Your task to perform on an android device: Clear all items from cart on target.com. Search for apple airpods on target.com, select the first entry, and add it to the cart. Image 0: 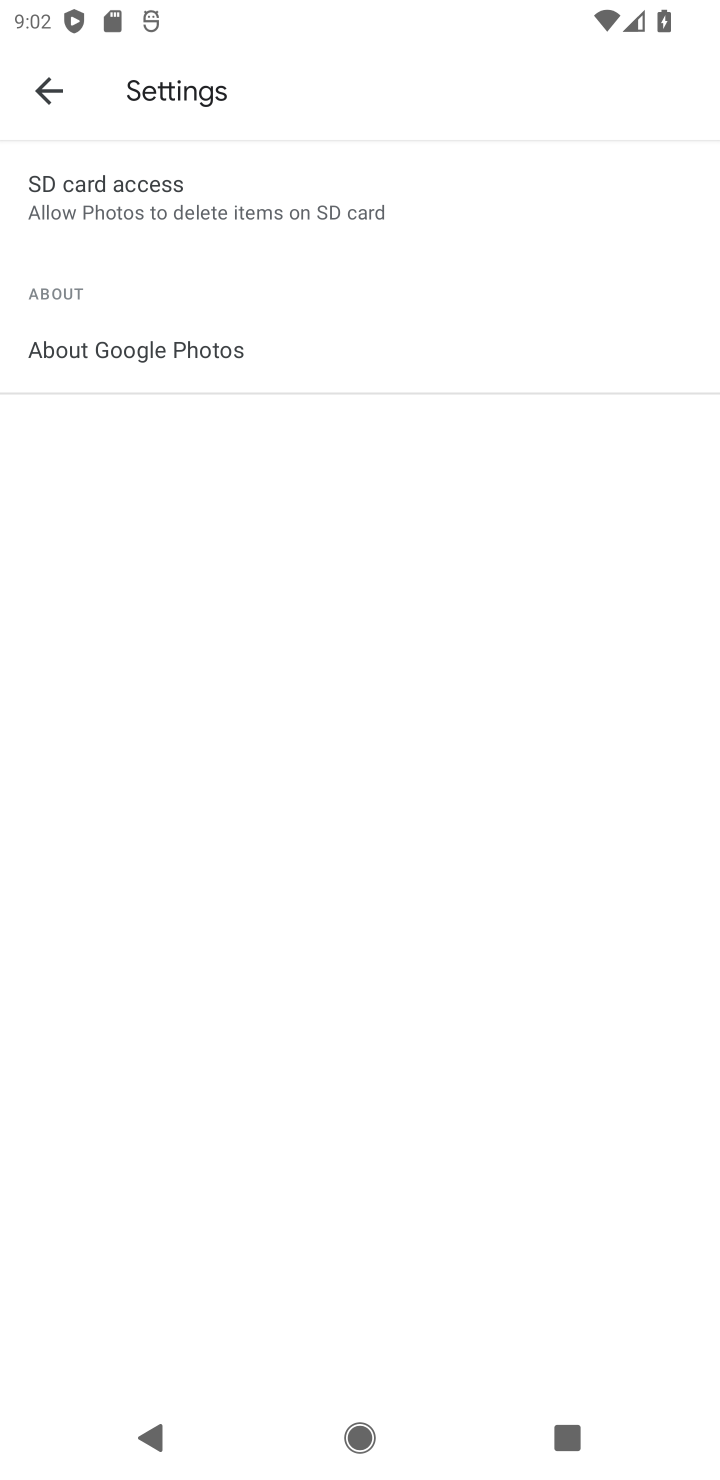
Step 0: press home button
Your task to perform on an android device: Clear all items from cart on target.com. Search for apple airpods on target.com, select the first entry, and add it to the cart. Image 1: 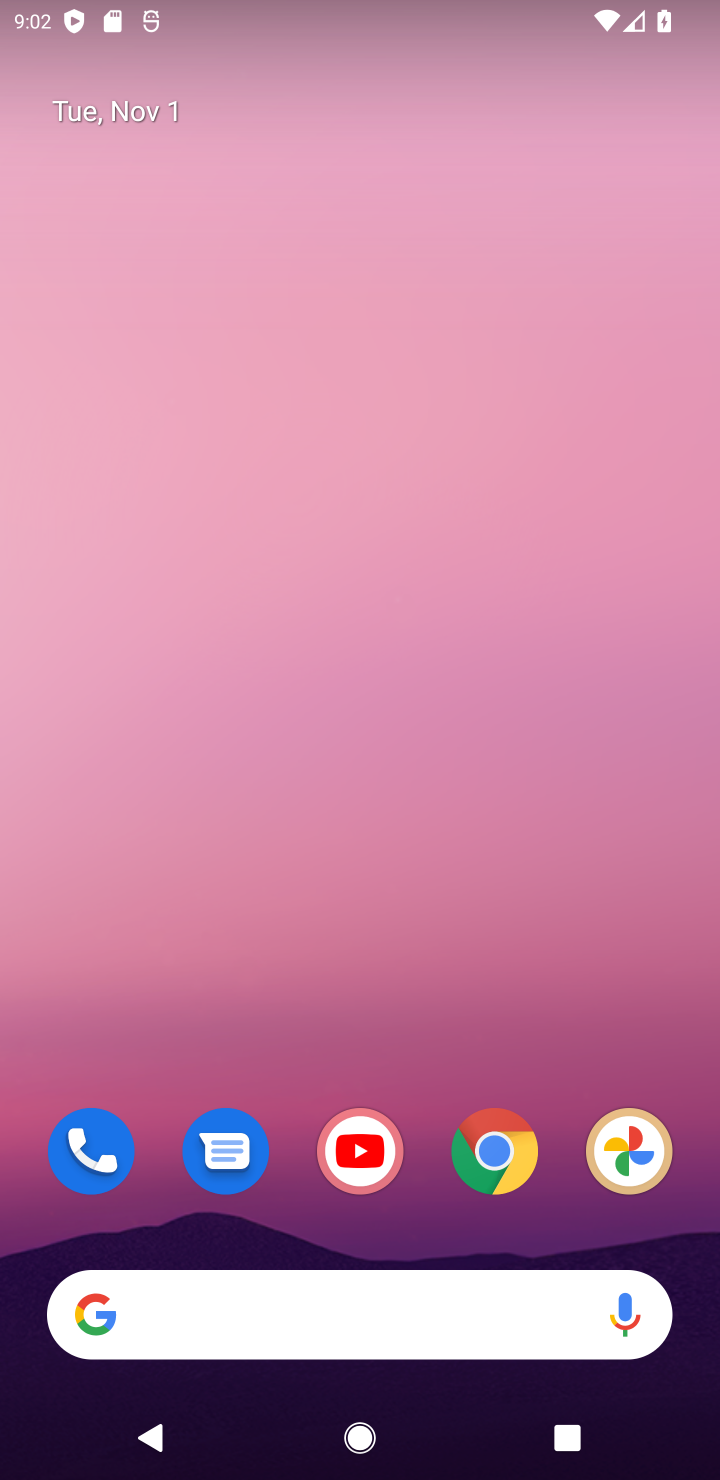
Step 1: click (499, 1169)
Your task to perform on an android device: Clear all items from cart on target.com. Search for apple airpods on target.com, select the first entry, and add it to the cart. Image 2: 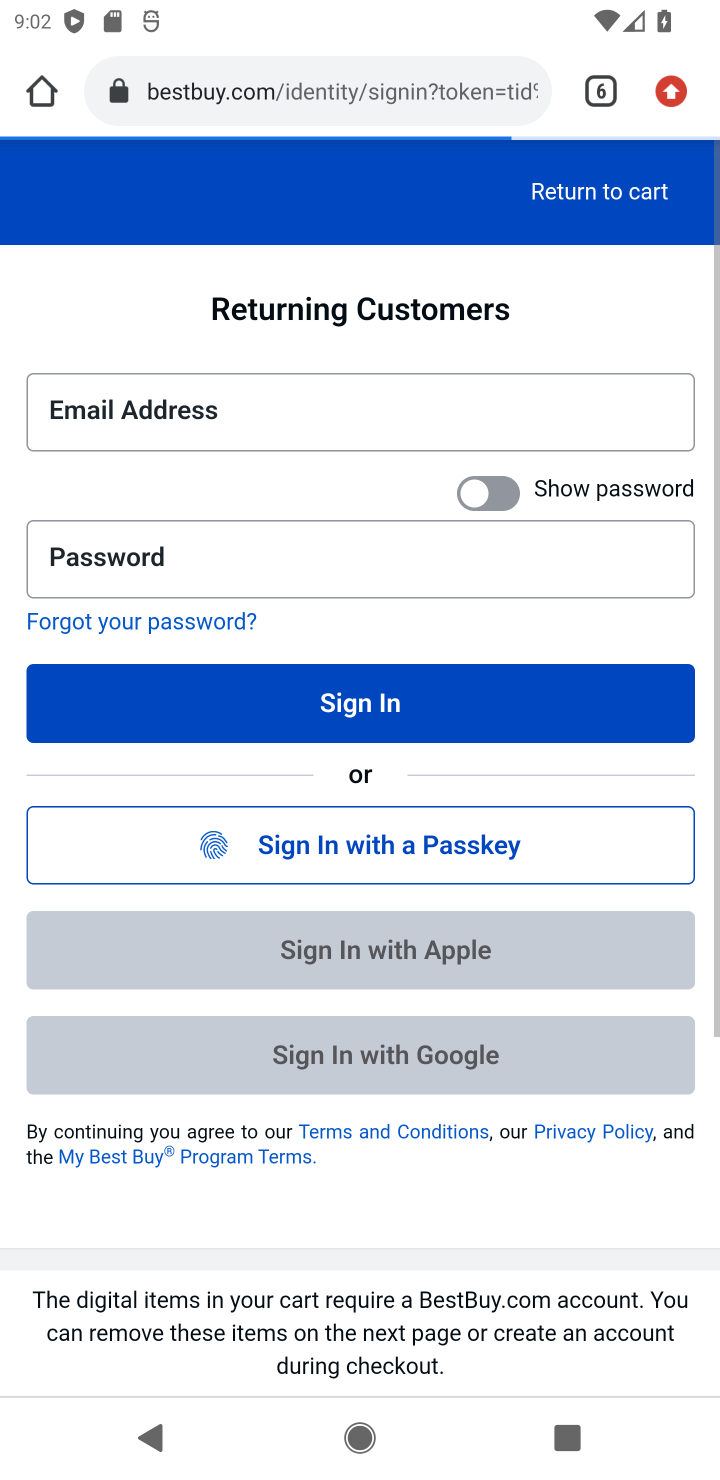
Step 2: click (602, 90)
Your task to perform on an android device: Clear all items from cart on target.com. Search for apple airpods on target.com, select the first entry, and add it to the cart. Image 3: 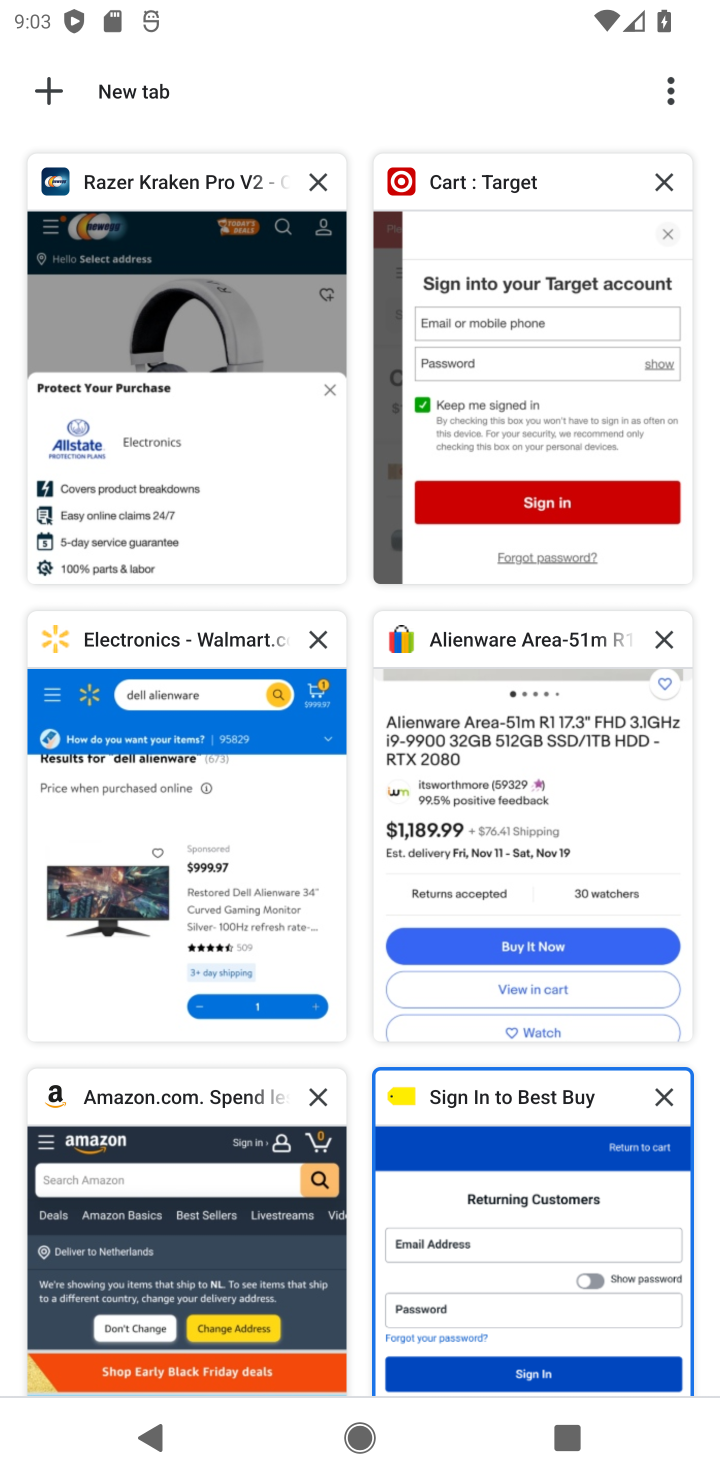
Step 3: click (516, 247)
Your task to perform on an android device: Clear all items from cart on target.com. Search for apple airpods on target.com, select the first entry, and add it to the cart. Image 4: 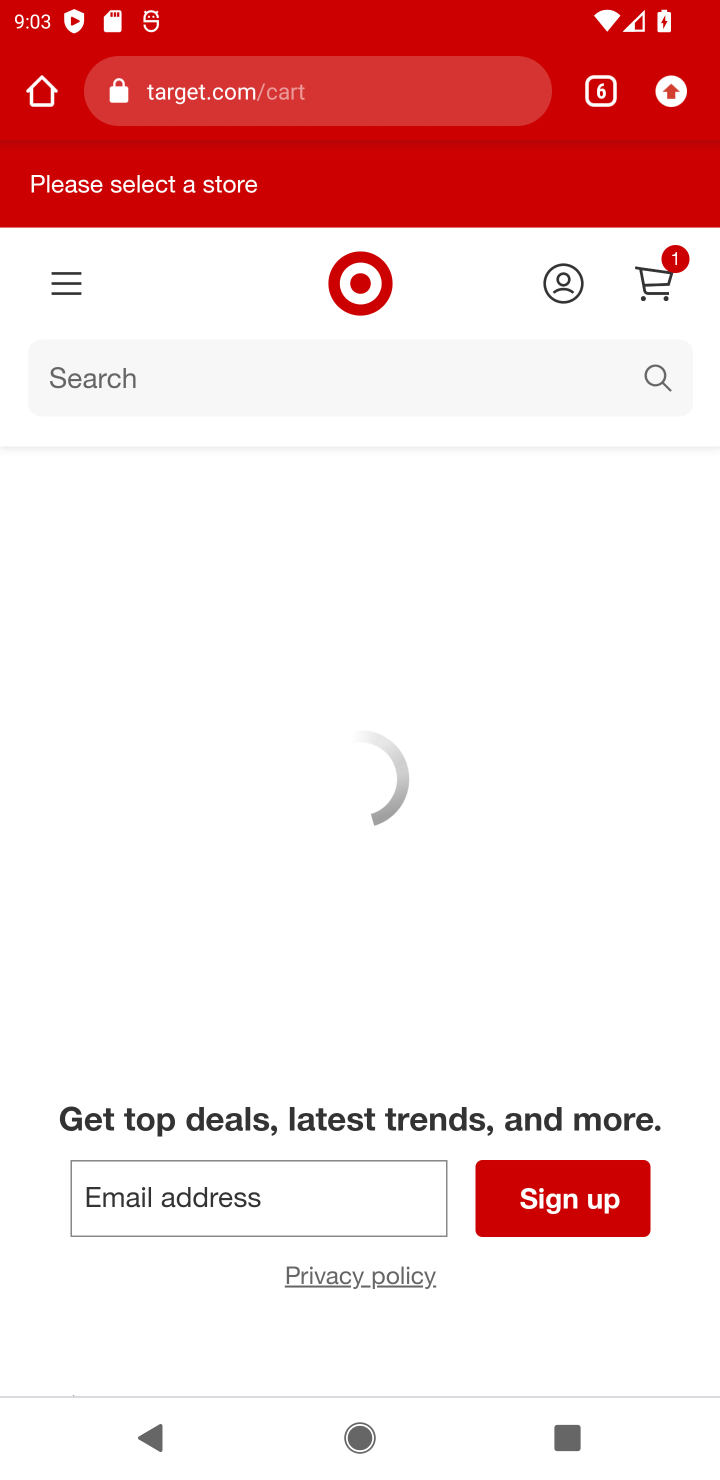
Step 4: click (667, 274)
Your task to perform on an android device: Clear all items from cart on target.com. Search for apple airpods on target.com, select the first entry, and add it to the cart. Image 5: 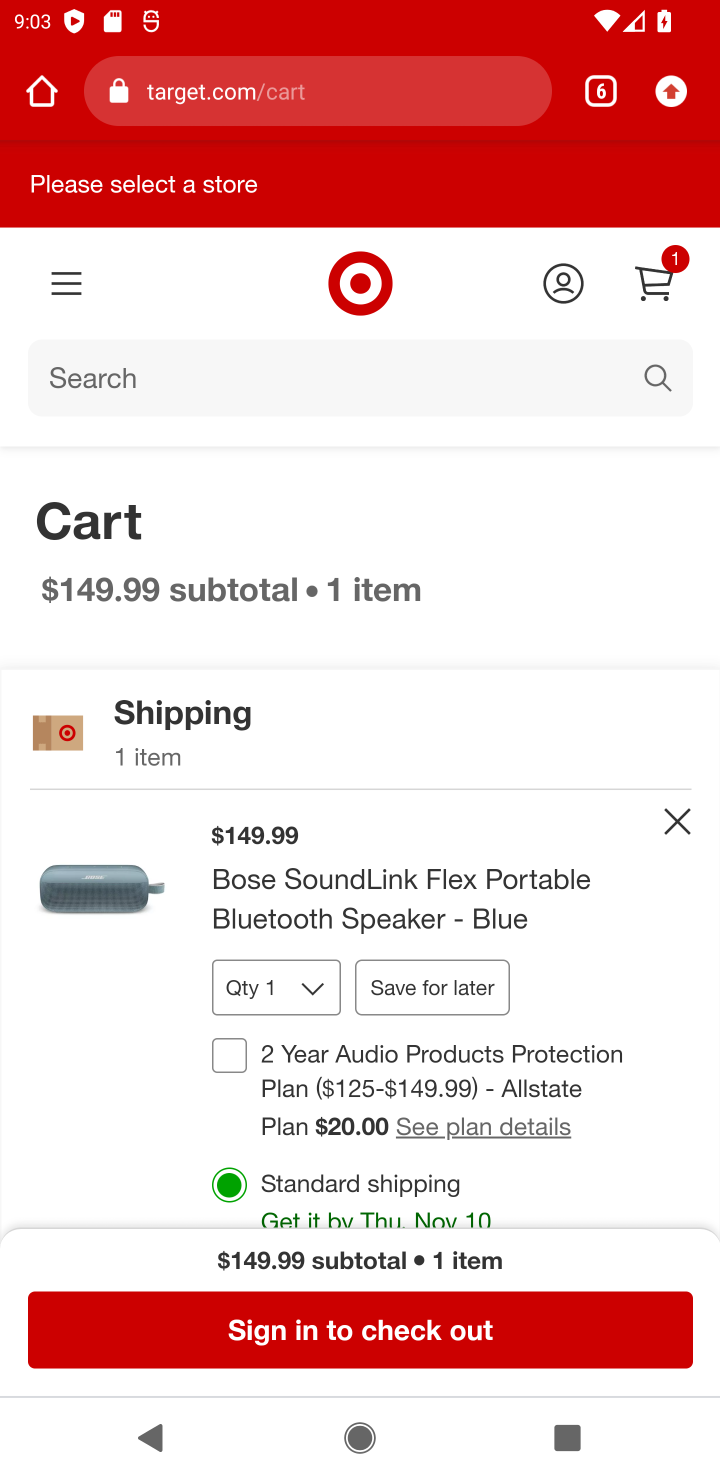
Step 5: drag from (413, 1113) to (594, 262)
Your task to perform on an android device: Clear all items from cart on target.com. Search for apple airpods on target.com, select the first entry, and add it to the cart. Image 6: 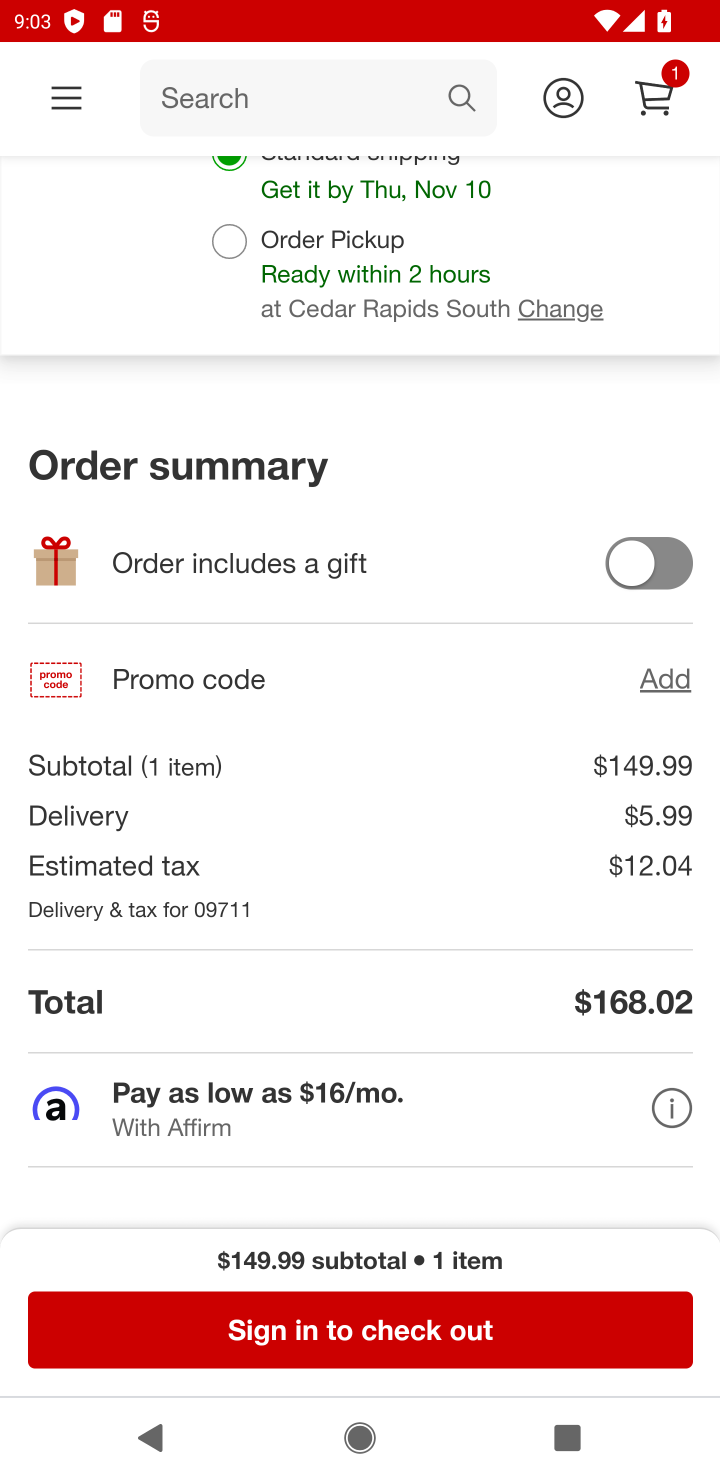
Step 6: drag from (557, 343) to (411, 1005)
Your task to perform on an android device: Clear all items from cart on target.com. Search for apple airpods on target.com, select the first entry, and add it to the cart. Image 7: 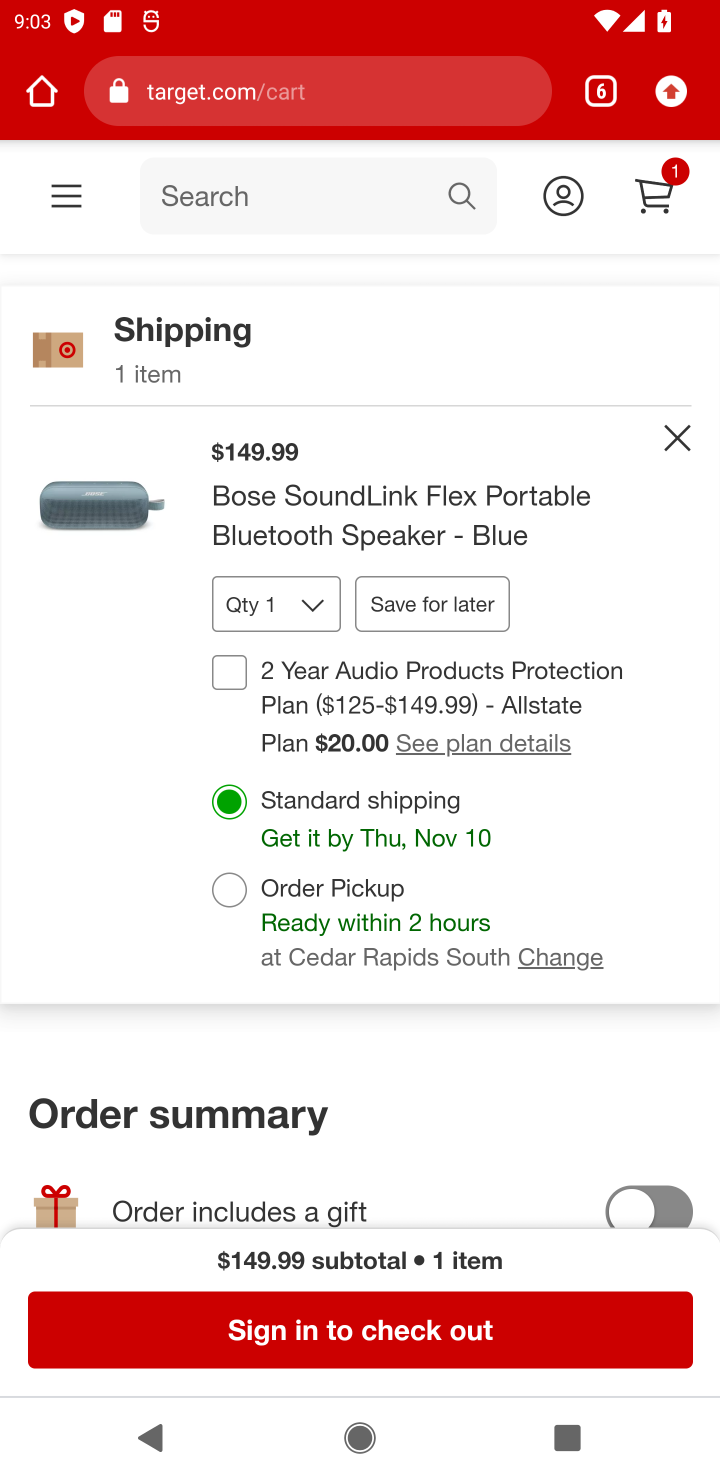
Step 7: click (674, 432)
Your task to perform on an android device: Clear all items from cart on target.com. Search for apple airpods on target.com, select the first entry, and add it to the cart. Image 8: 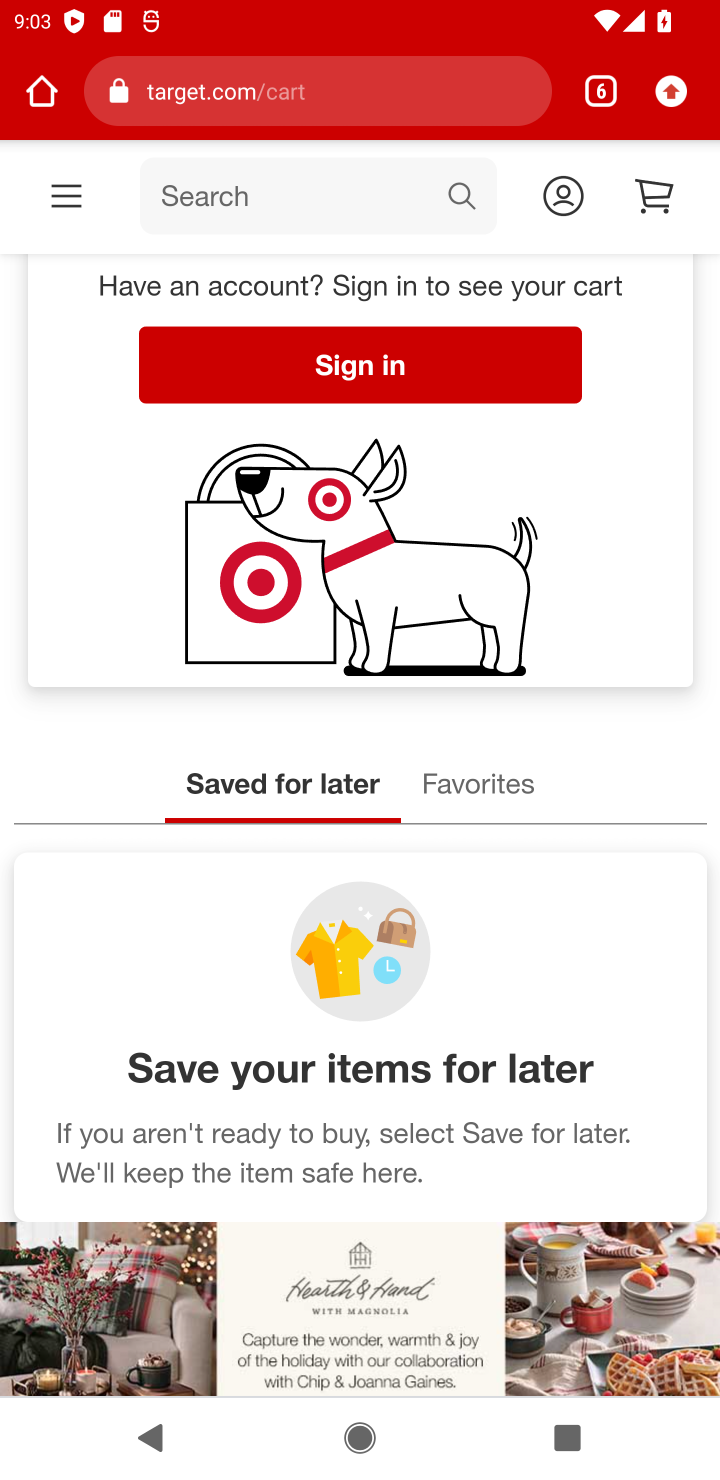
Step 8: click (418, 191)
Your task to perform on an android device: Clear all items from cart on target.com. Search for apple airpods on target.com, select the first entry, and add it to the cart. Image 9: 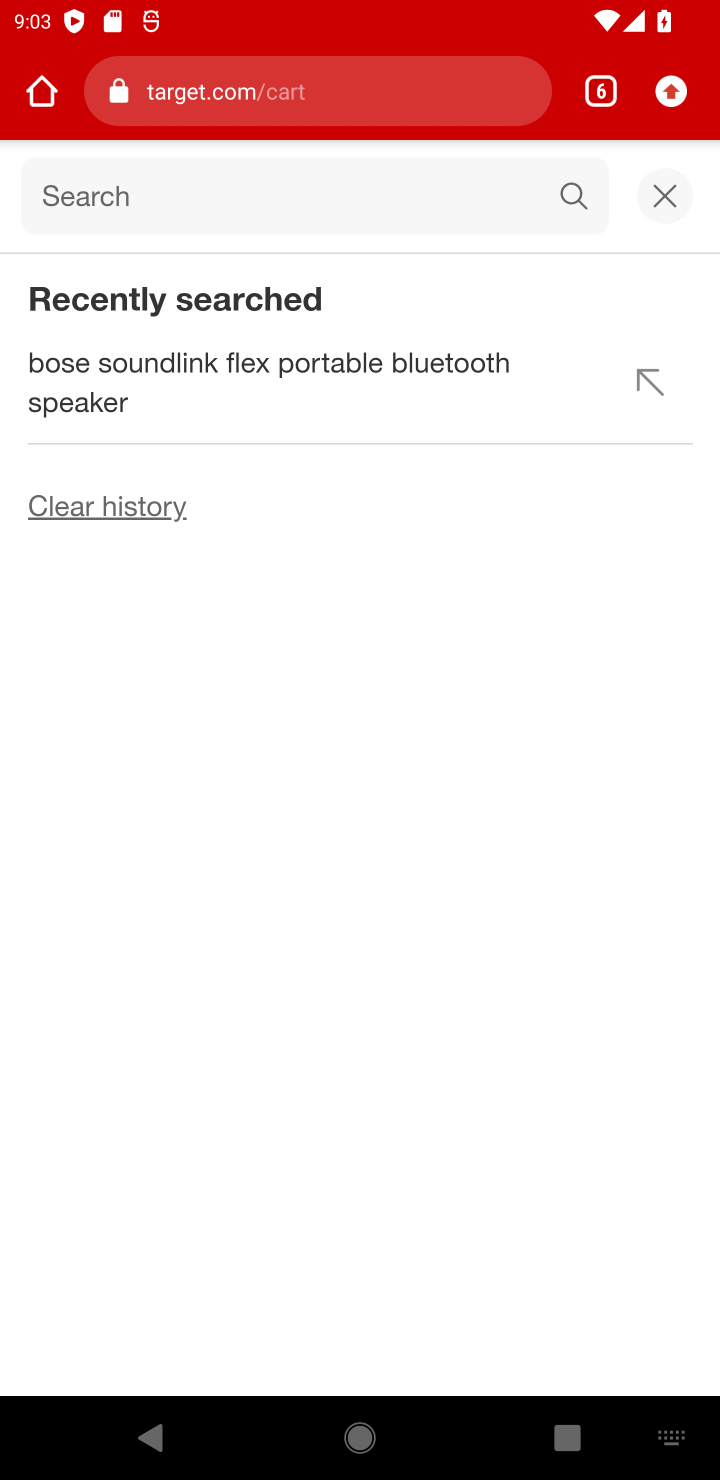
Step 9: type "apple airpods "
Your task to perform on an android device: Clear all items from cart on target.com. Search for apple airpods on target.com, select the first entry, and add it to the cart. Image 10: 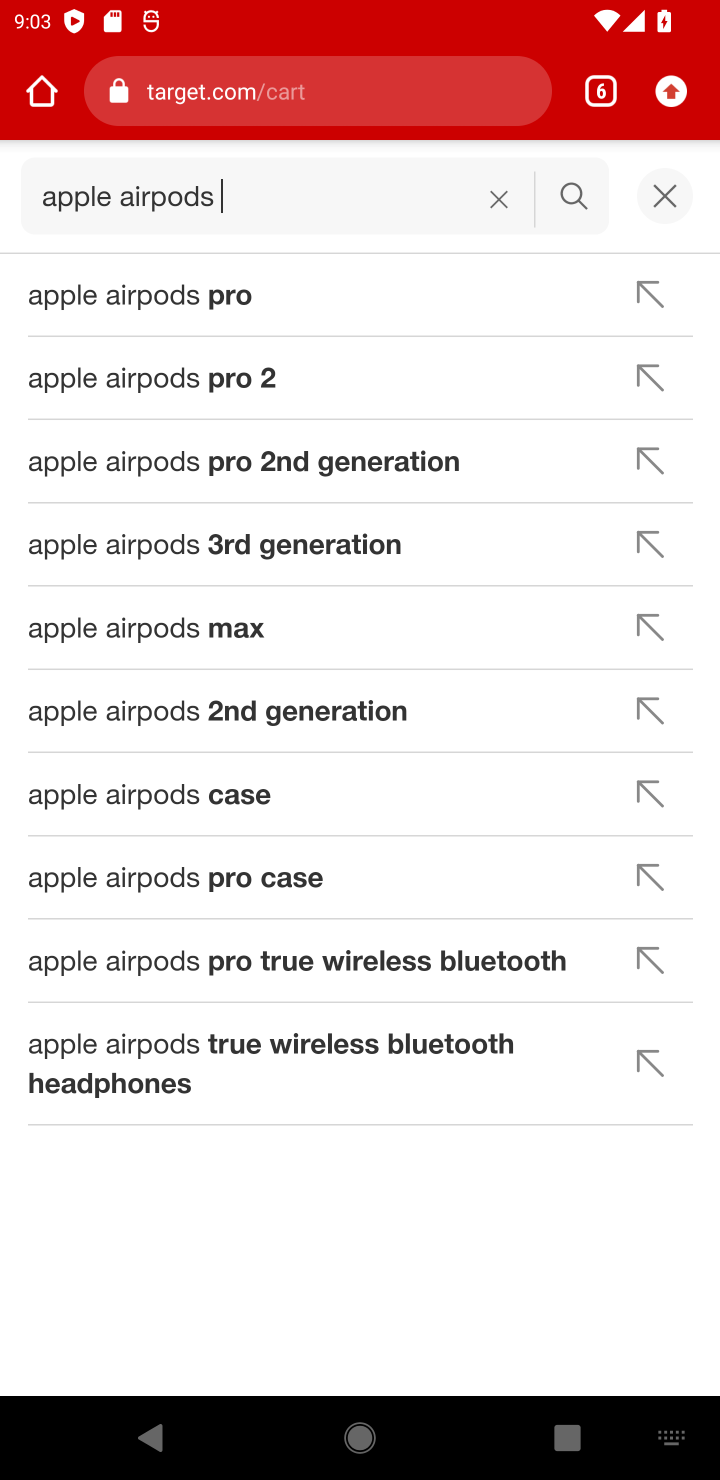
Step 10: click (199, 294)
Your task to perform on an android device: Clear all items from cart on target.com. Search for apple airpods on target.com, select the first entry, and add it to the cart. Image 11: 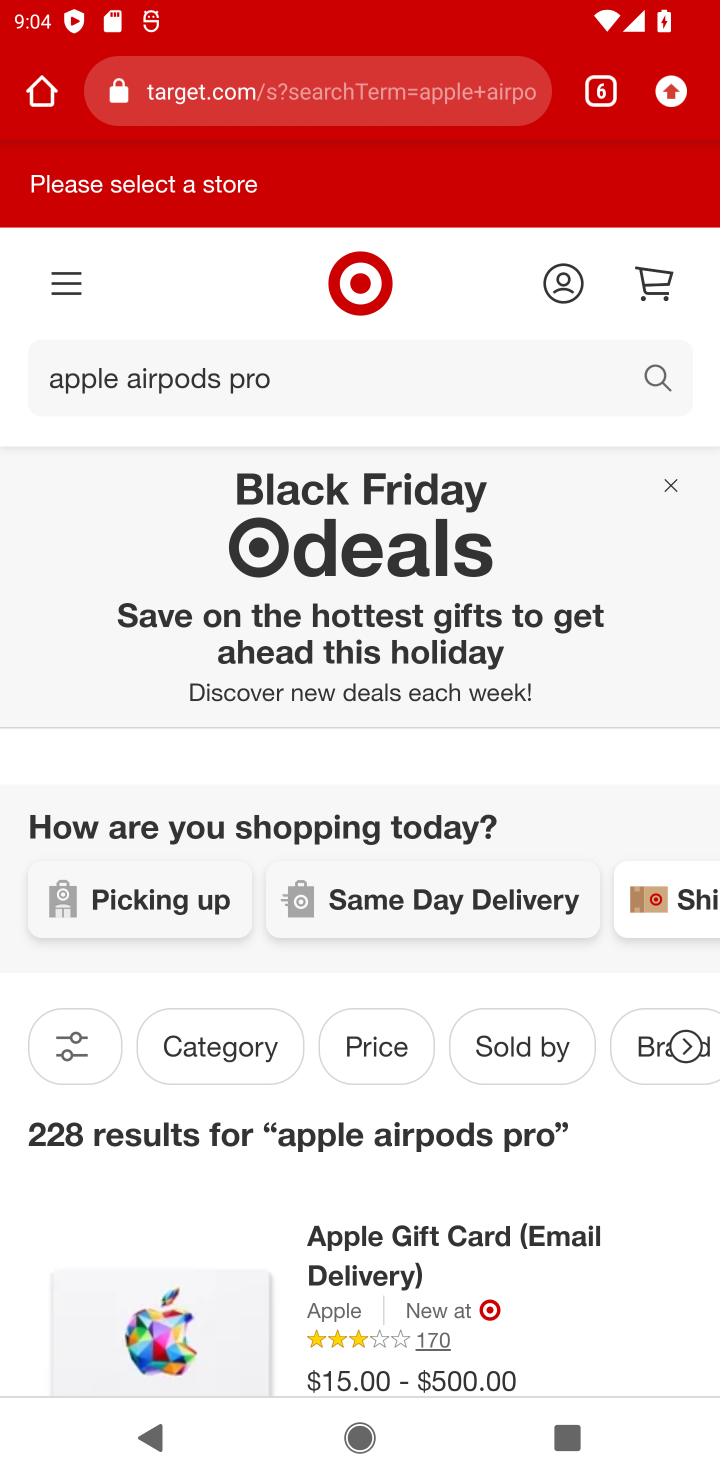
Step 11: drag from (384, 1301) to (420, 457)
Your task to perform on an android device: Clear all items from cart on target.com. Search for apple airpods on target.com, select the first entry, and add it to the cart. Image 12: 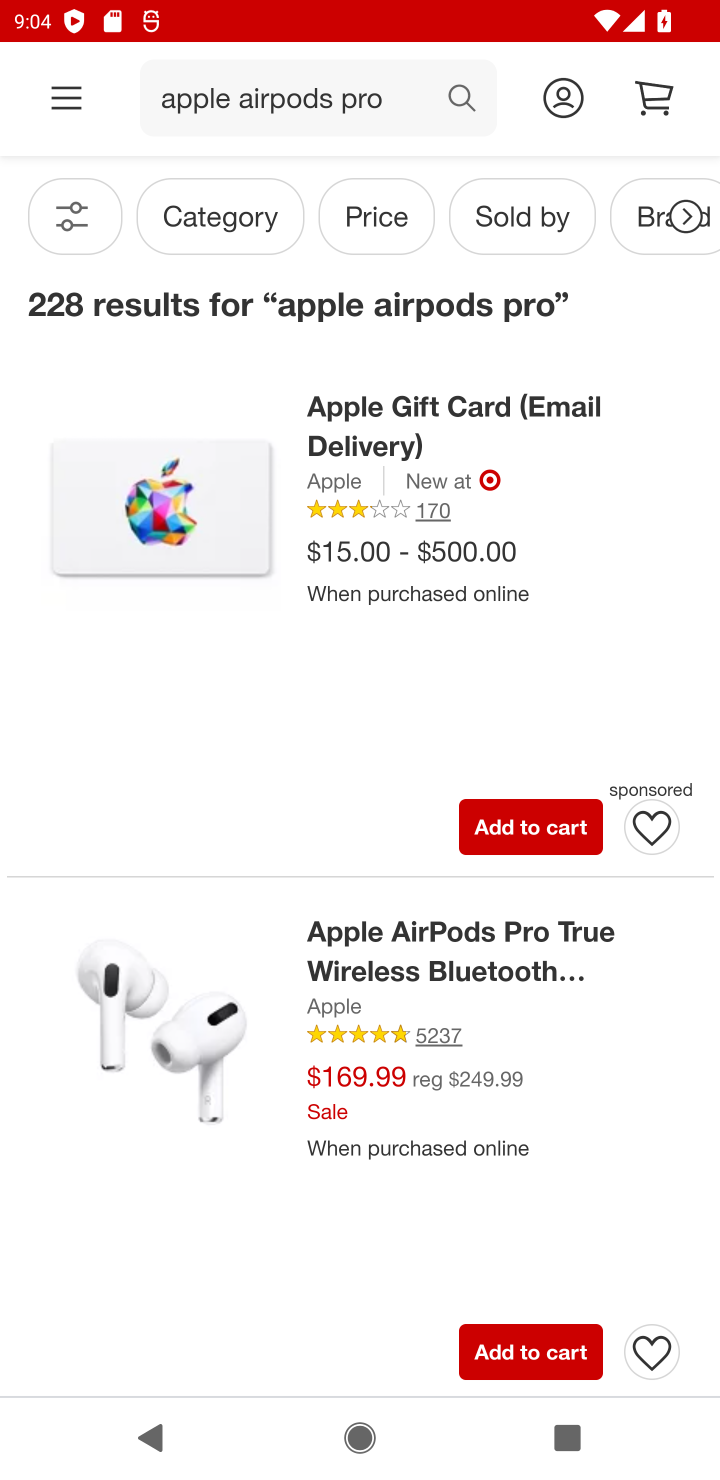
Step 12: click (545, 832)
Your task to perform on an android device: Clear all items from cart on target.com. Search for apple airpods on target.com, select the first entry, and add it to the cart. Image 13: 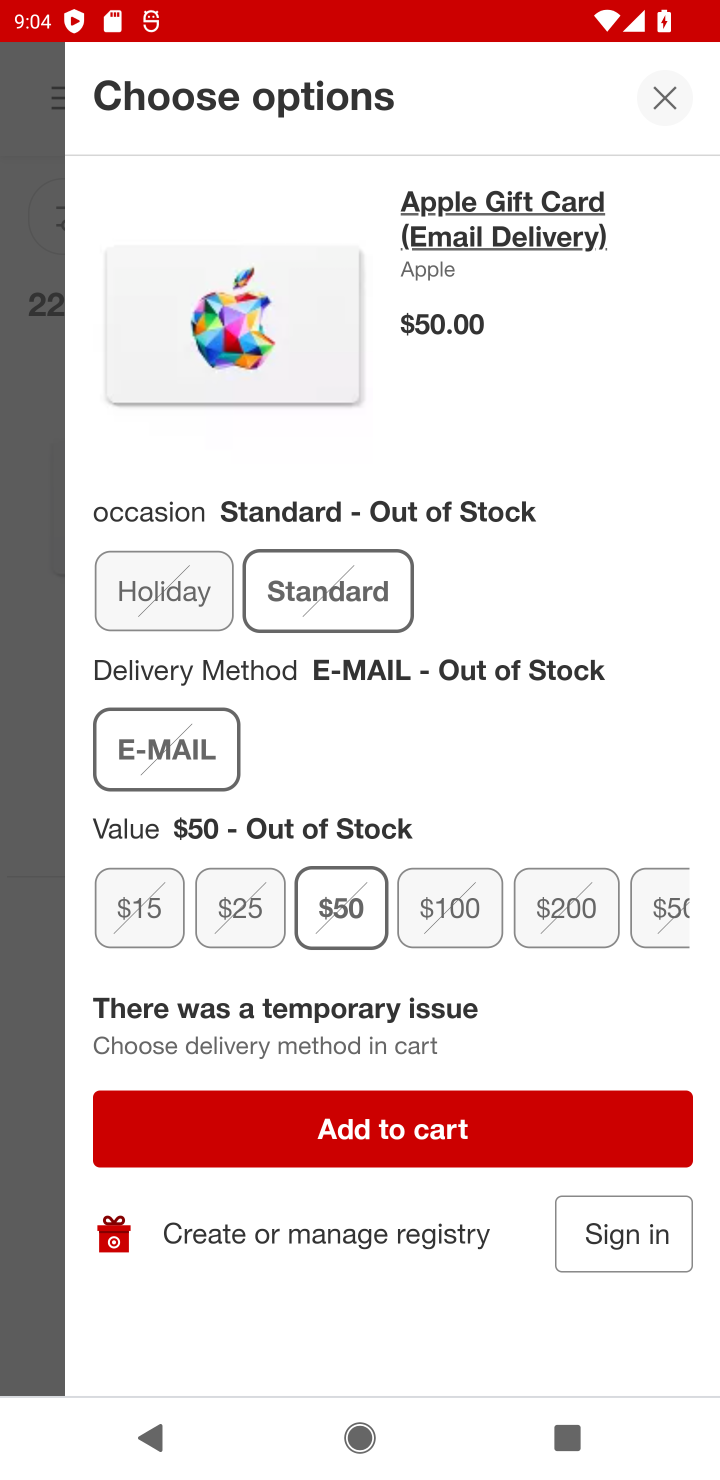
Step 13: task complete